Your task to perform on an android device: Open Reddit.com Image 0: 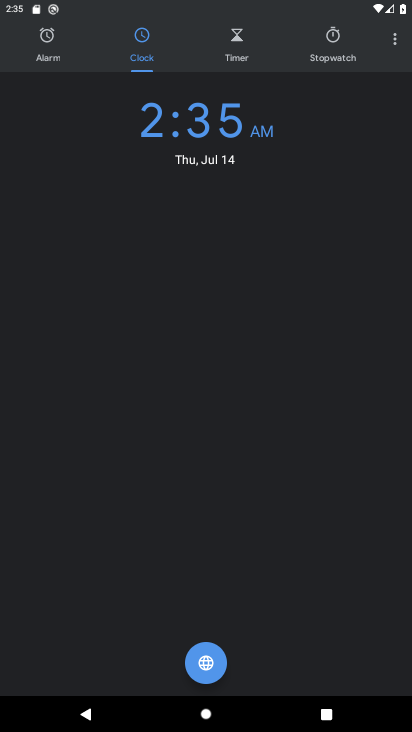
Step 0: press home button
Your task to perform on an android device: Open Reddit.com Image 1: 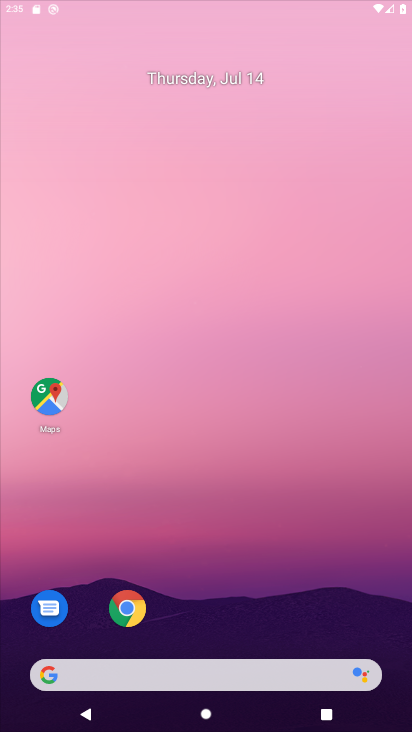
Step 1: drag from (292, 554) to (304, 14)
Your task to perform on an android device: Open Reddit.com Image 2: 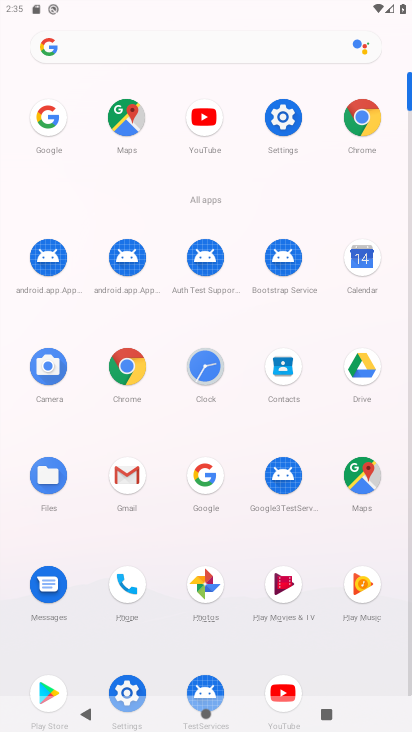
Step 2: click (367, 147)
Your task to perform on an android device: Open Reddit.com Image 3: 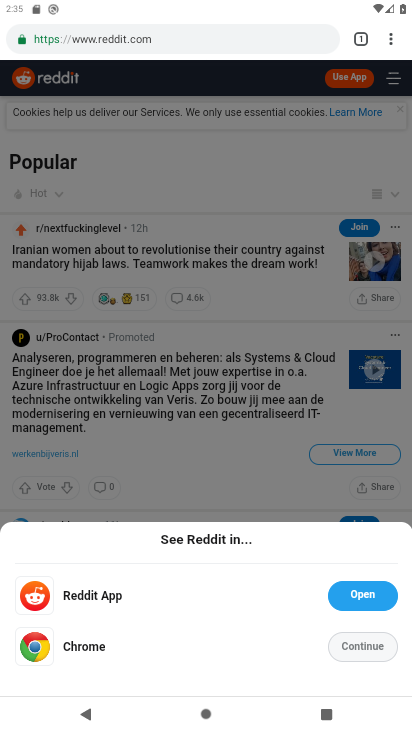
Step 3: task complete